Your task to perform on an android device: Clear the shopping cart on newegg. Search for "razer naga" on newegg, select the first entry, and add it to the cart. Image 0: 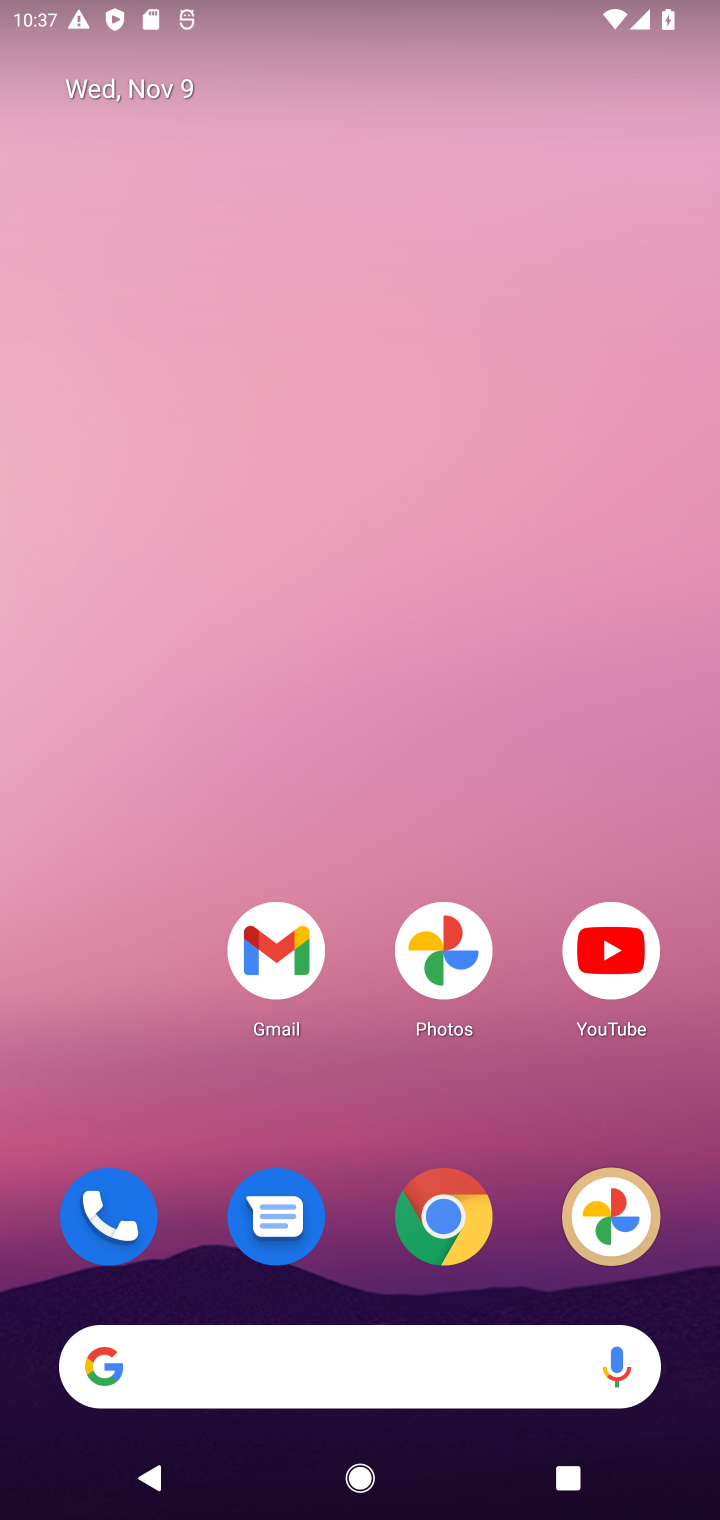
Step 0: drag from (414, 686) to (433, 70)
Your task to perform on an android device: Clear the shopping cart on newegg. Search for "razer naga" on newegg, select the first entry, and add it to the cart. Image 1: 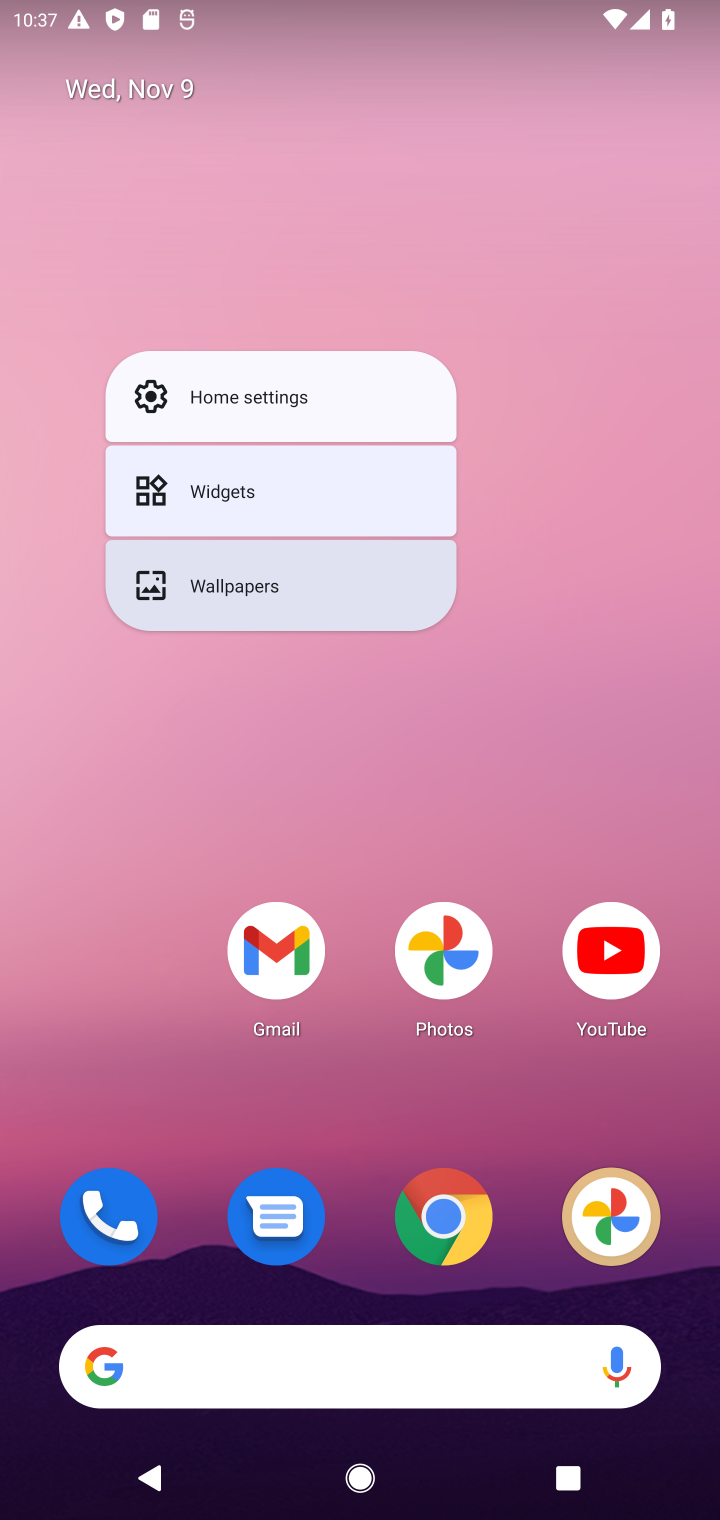
Step 1: click (492, 306)
Your task to perform on an android device: Clear the shopping cart on newegg. Search for "razer naga" on newegg, select the first entry, and add it to the cart. Image 2: 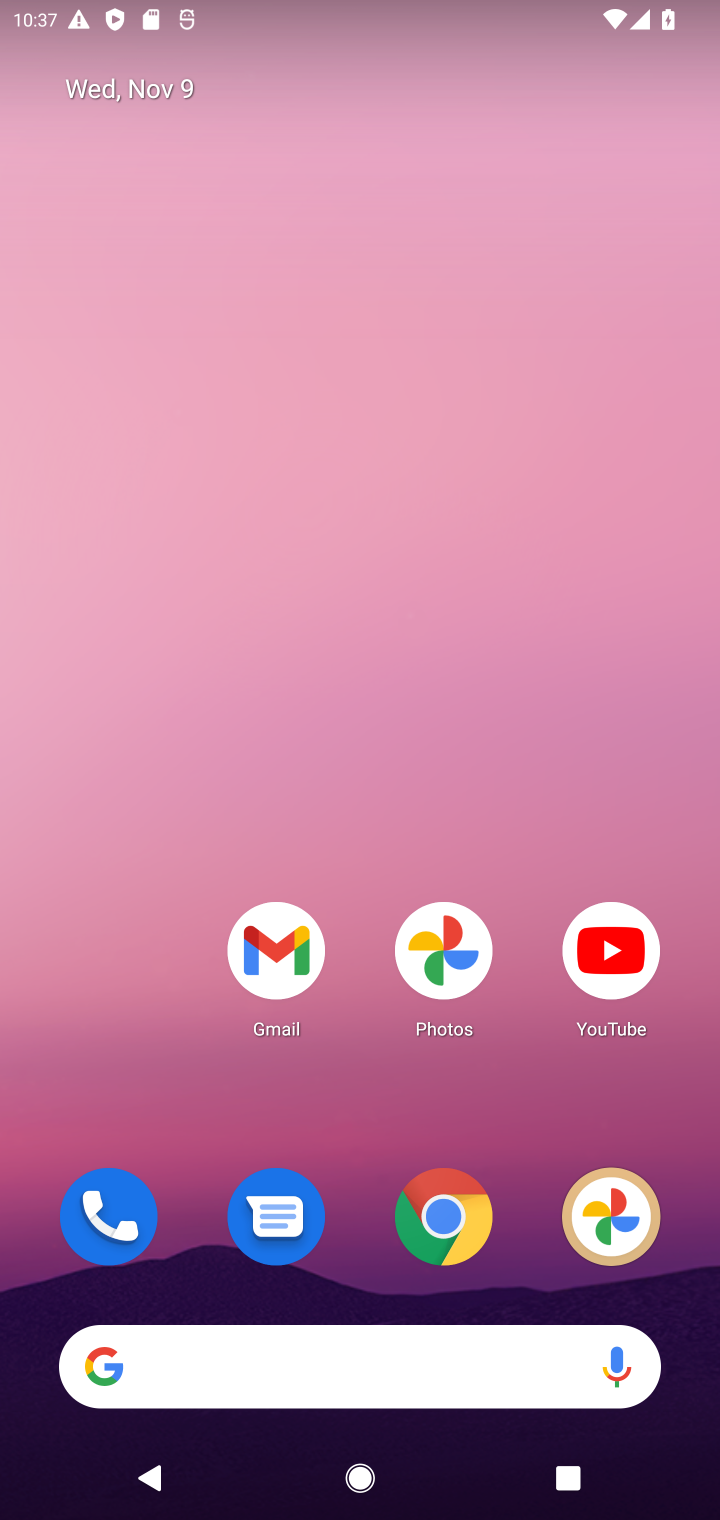
Step 2: drag from (376, 1131) to (392, 103)
Your task to perform on an android device: Clear the shopping cart on newegg. Search for "razer naga" on newegg, select the first entry, and add it to the cart. Image 3: 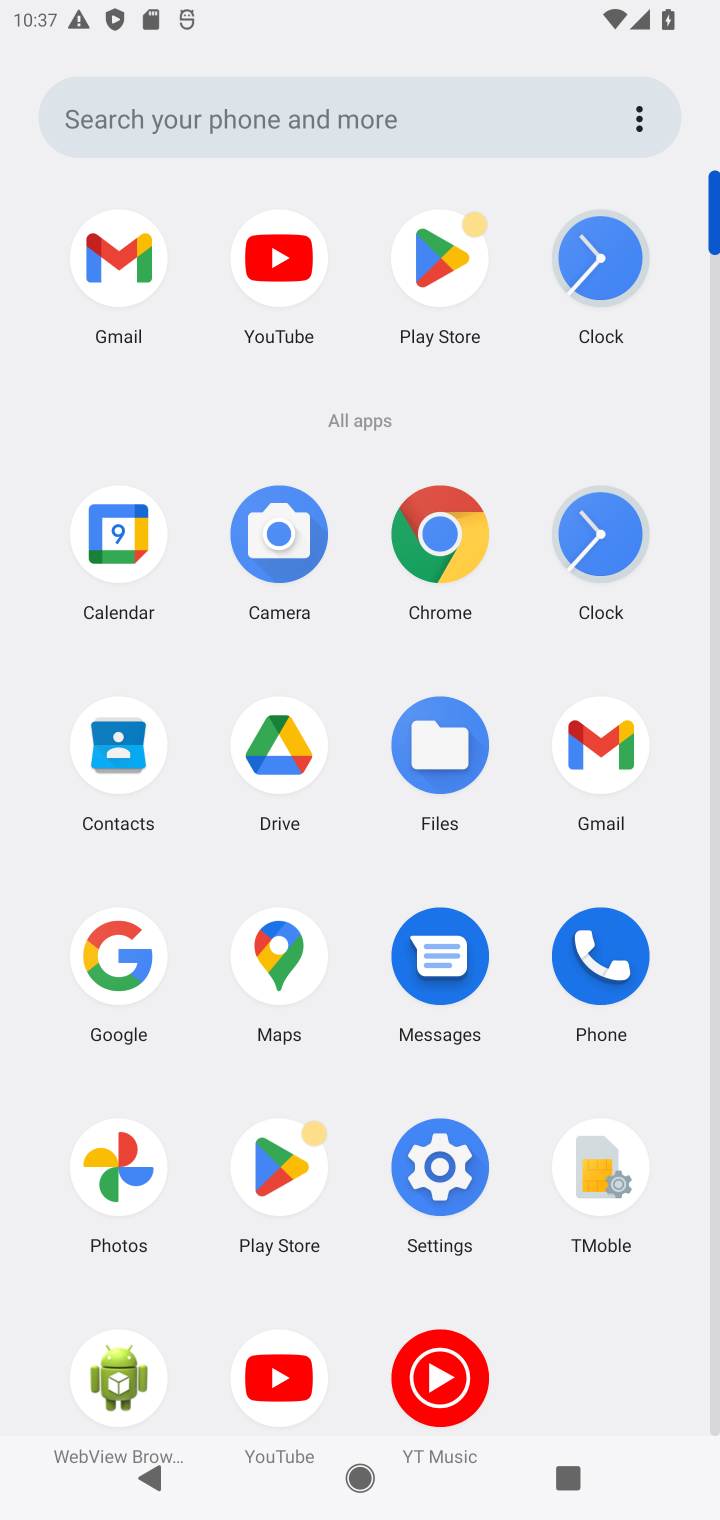
Step 3: click (442, 537)
Your task to perform on an android device: Clear the shopping cart on newegg. Search for "razer naga" on newegg, select the first entry, and add it to the cart. Image 4: 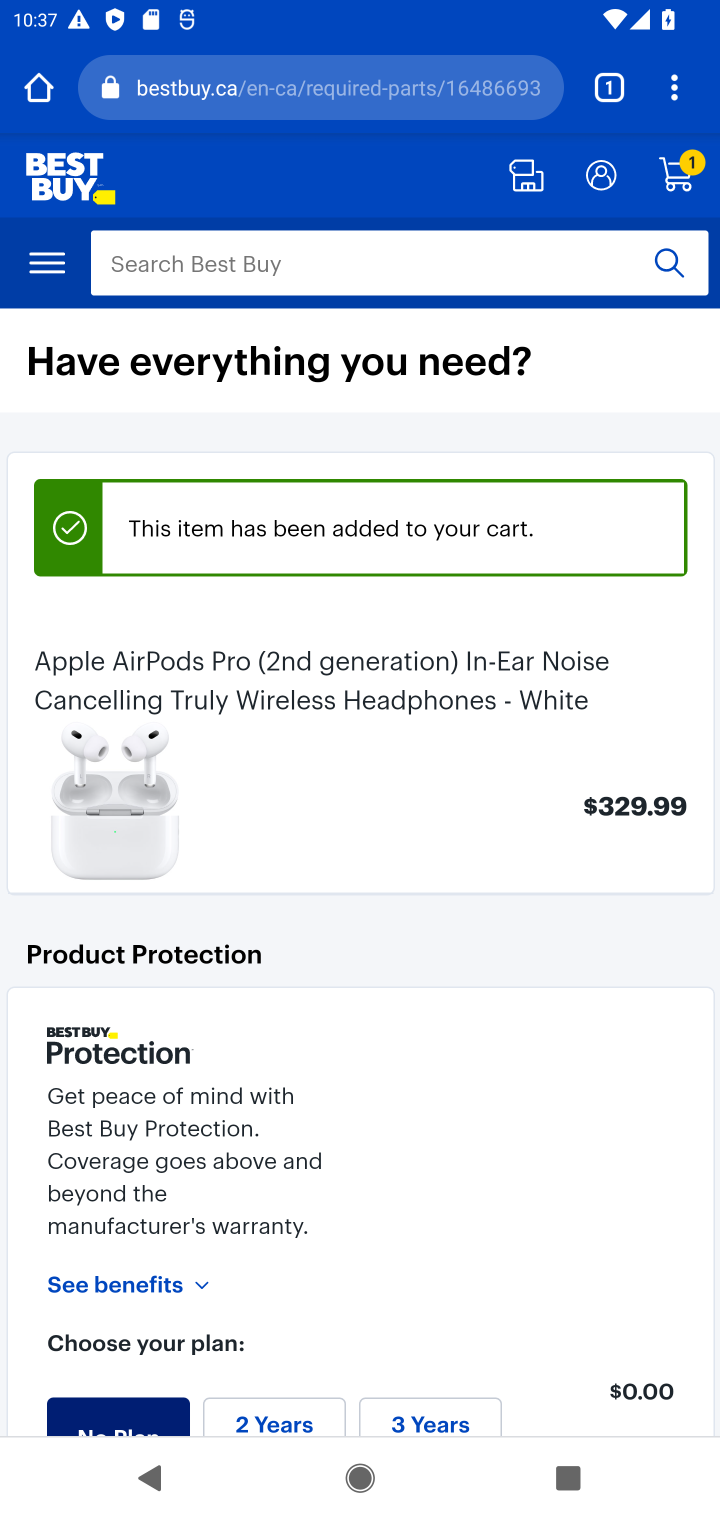
Step 4: click (406, 102)
Your task to perform on an android device: Clear the shopping cart on newegg. Search for "razer naga" on newegg, select the first entry, and add it to the cart. Image 5: 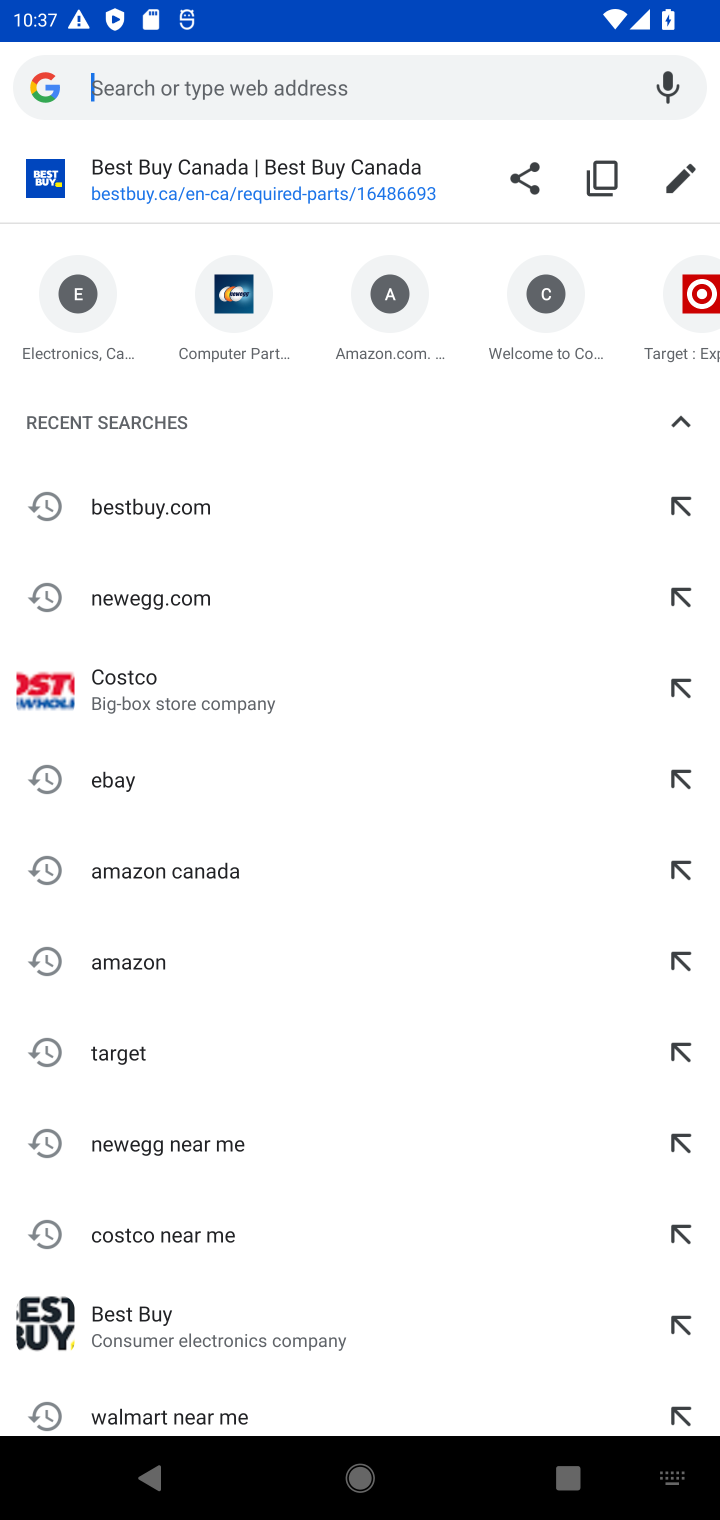
Step 5: type "newegg.com"
Your task to perform on an android device: Clear the shopping cart on newegg. Search for "razer naga" on newegg, select the first entry, and add it to the cart. Image 6: 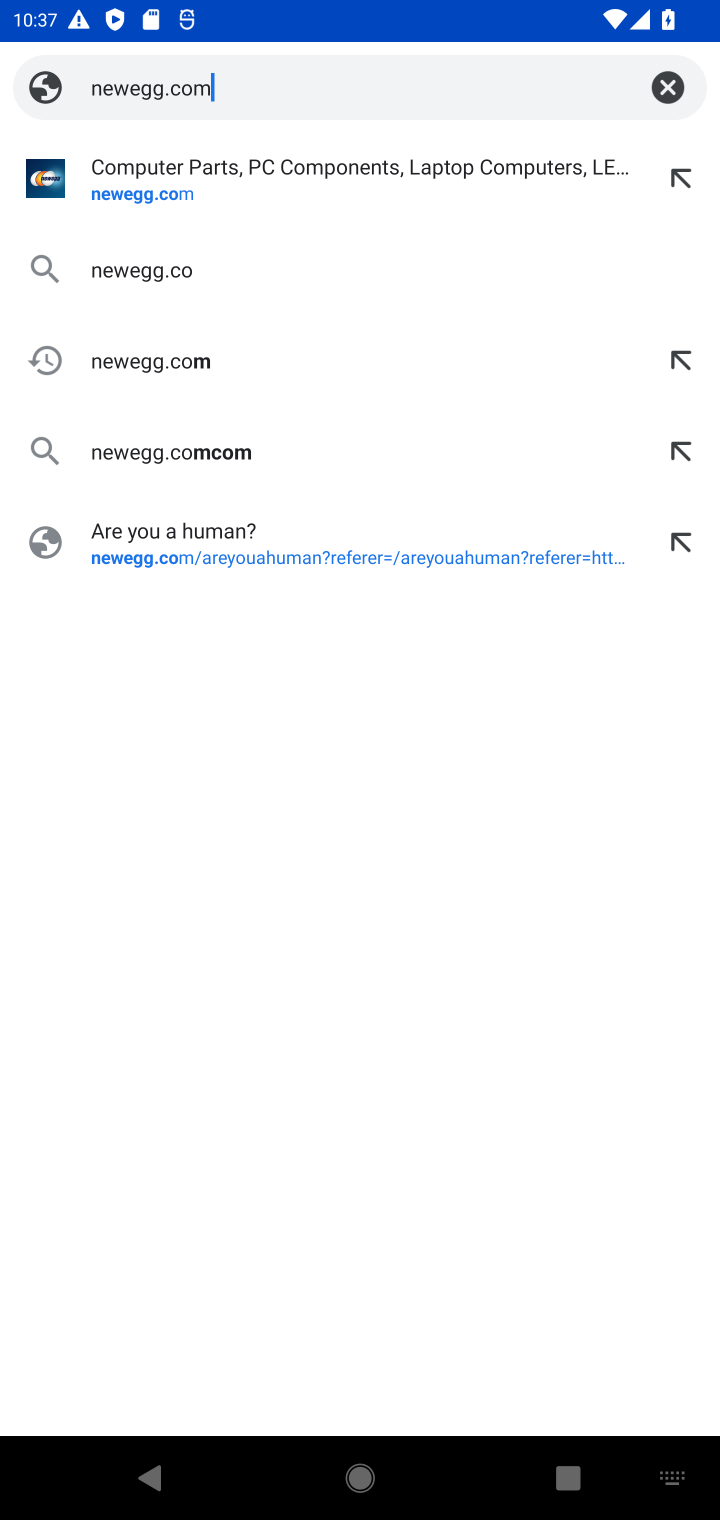
Step 6: press enter
Your task to perform on an android device: Clear the shopping cart on newegg. Search for "razer naga" on newegg, select the first entry, and add it to the cart. Image 7: 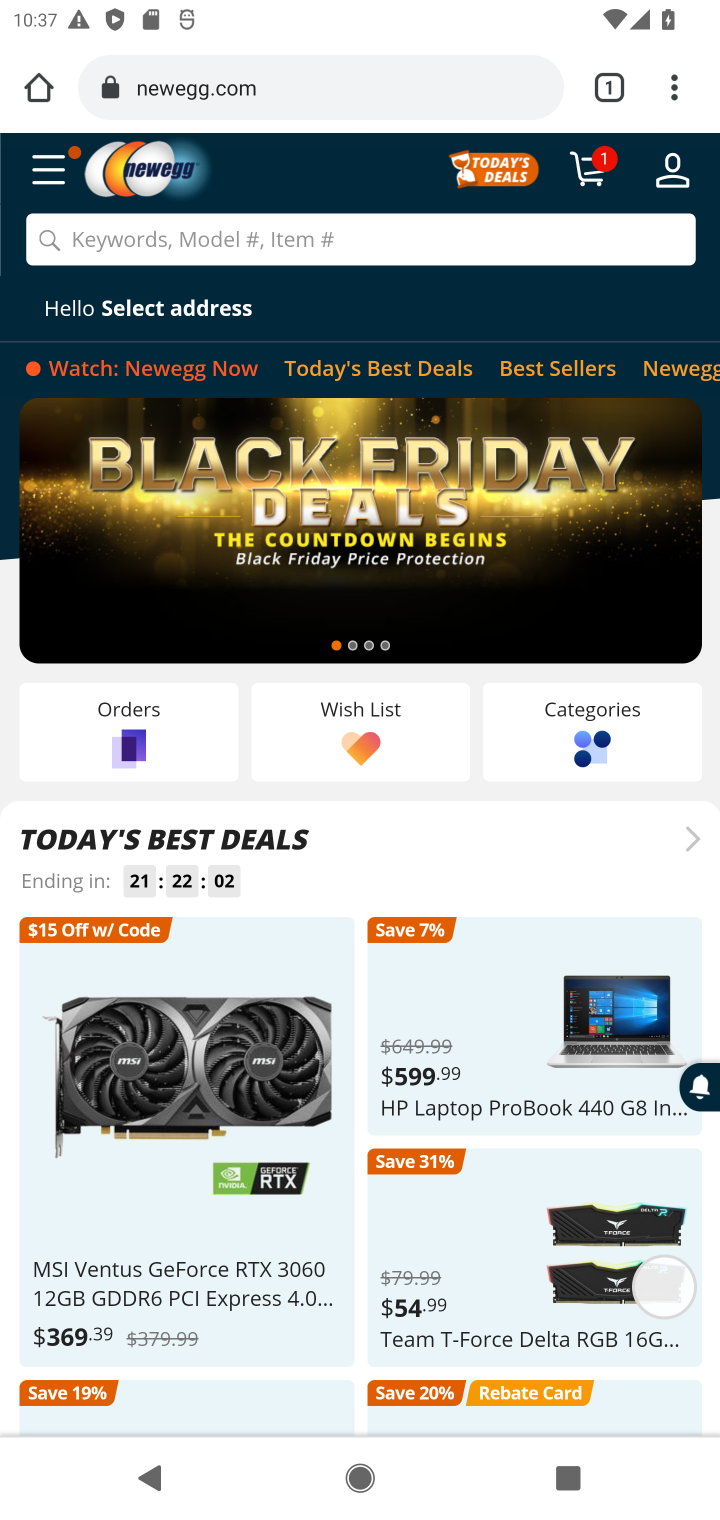
Step 7: click (602, 177)
Your task to perform on an android device: Clear the shopping cart on newegg. Search for "razer naga" on newegg, select the first entry, and add it to the cart. Image 8: 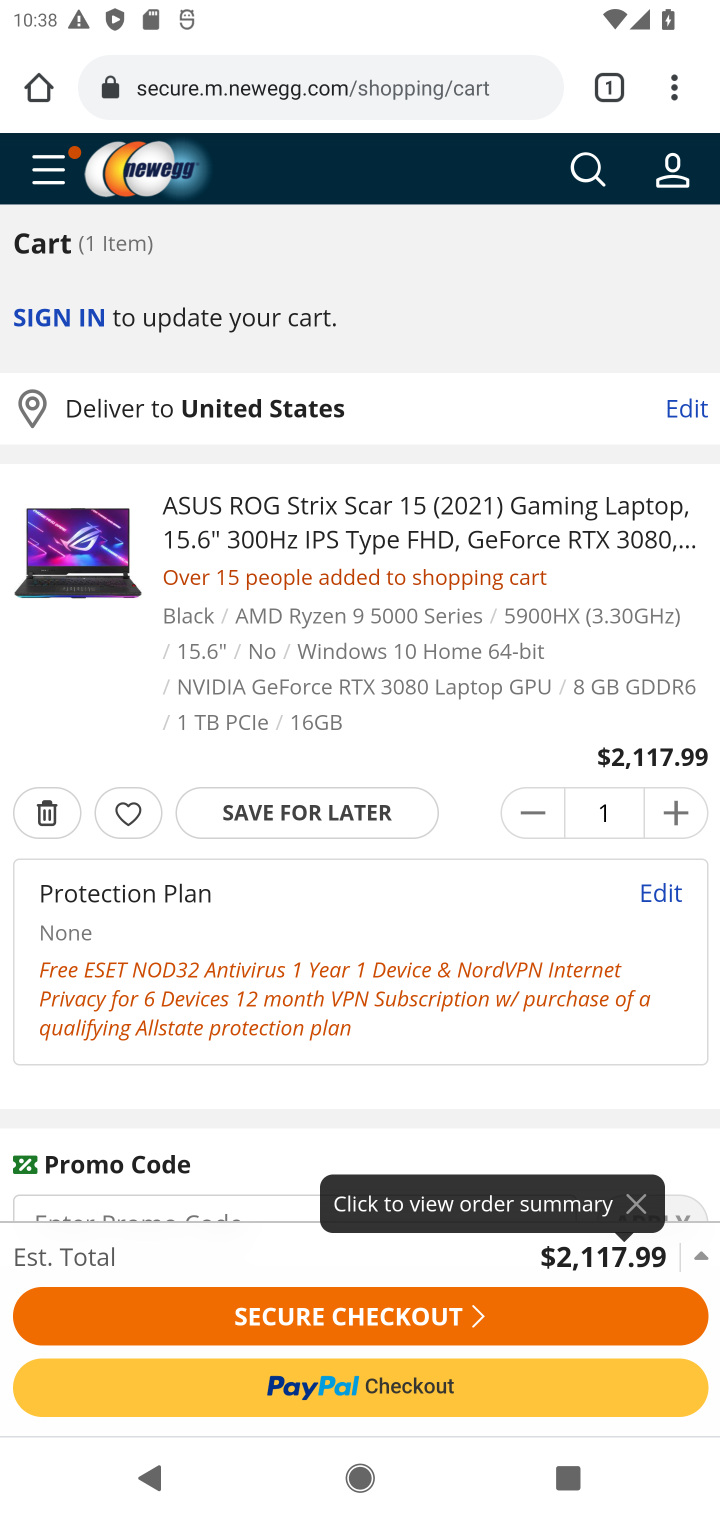
Step 8: click (34, 808)
Your task to perform on an android device: Clear the shopping cart on newegg. Search for "razer naga" on newegg, select the first entry, and add it to the cart. Image 9: 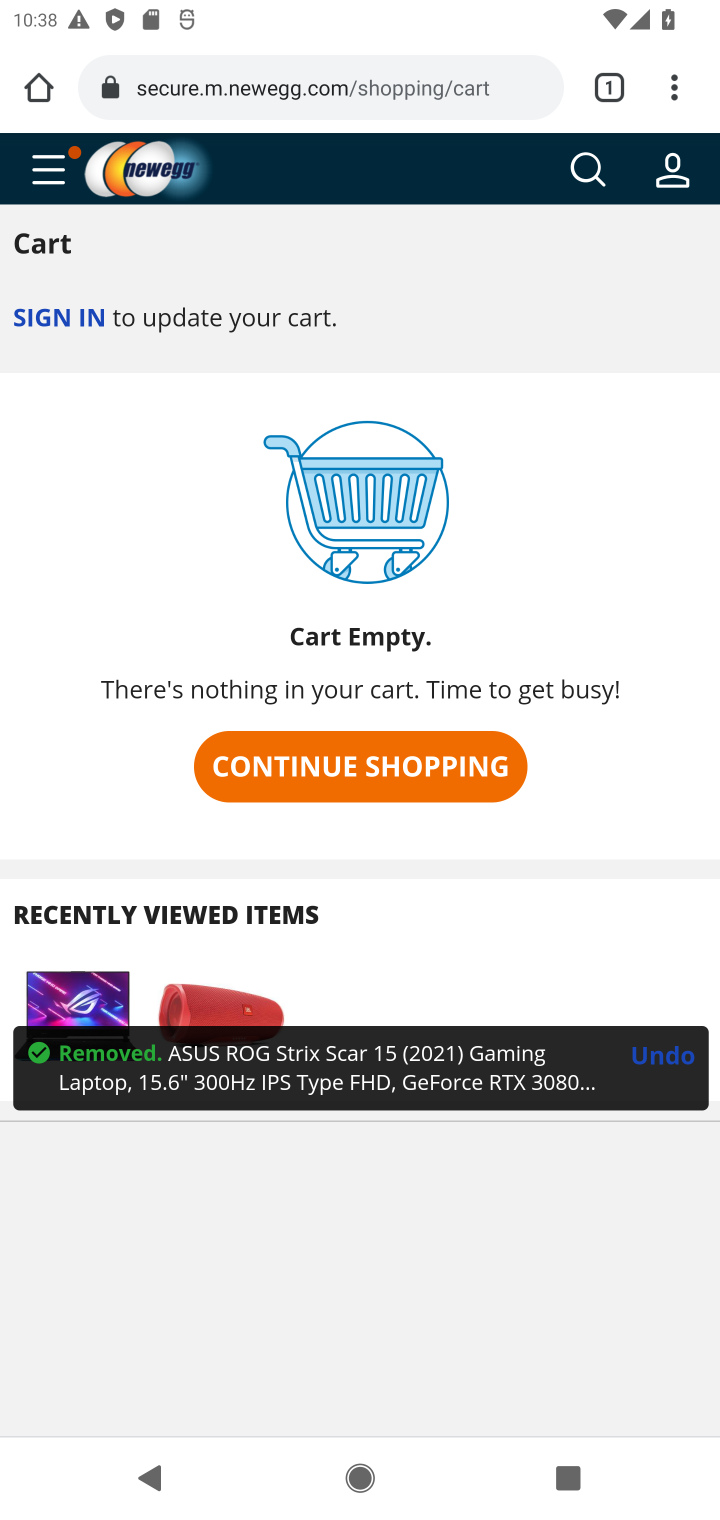
Step 9: click (607, 165)
Your task to perform on an android device: Clear the shopping cart on newegg. Search for "razer naga" on newegg, select the first entry, and add it to the cart. Image 10: 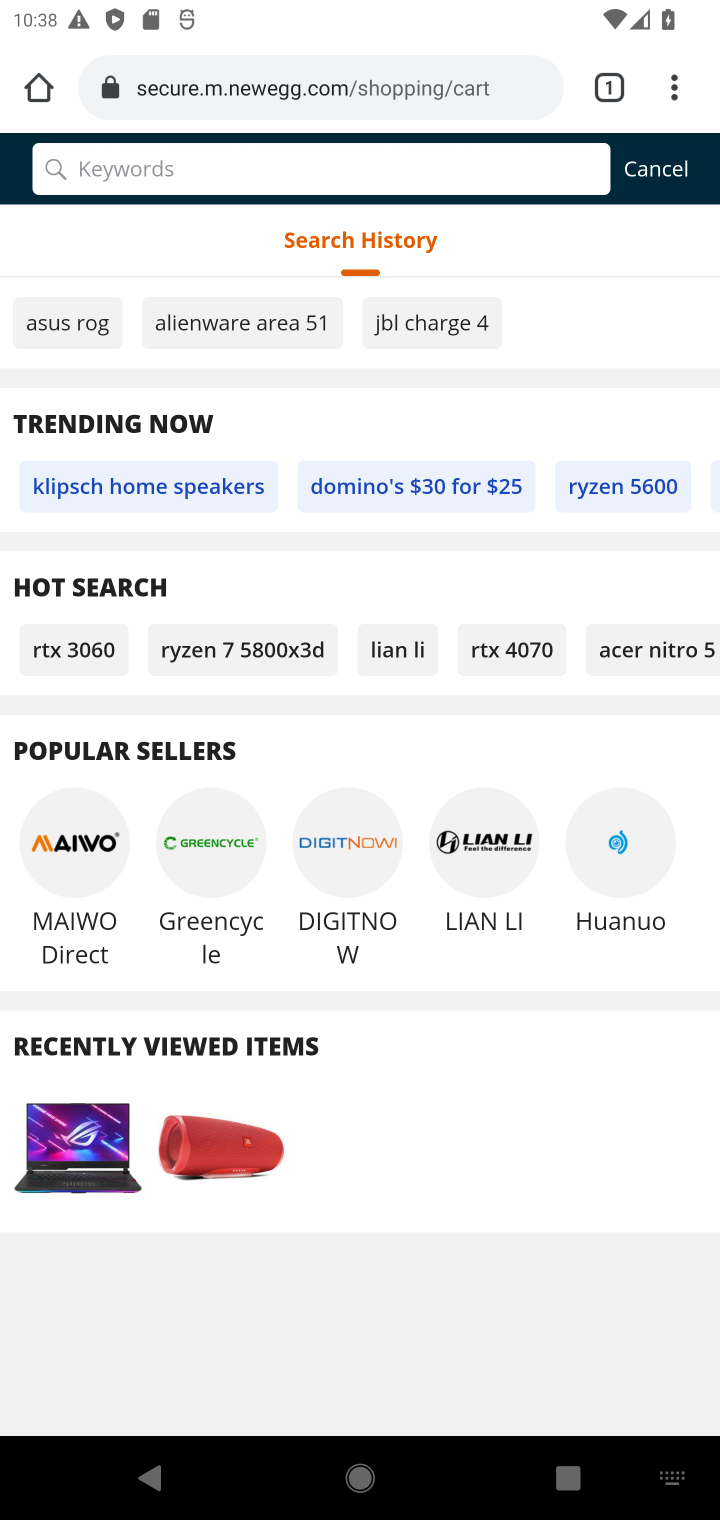
Step 10: click (645, 173)
Your task to perform on an android device: Clear the shopping cart on newegg. Search for "razer naga" on newegg, select the first entry, and add it to the cart. Image 11: 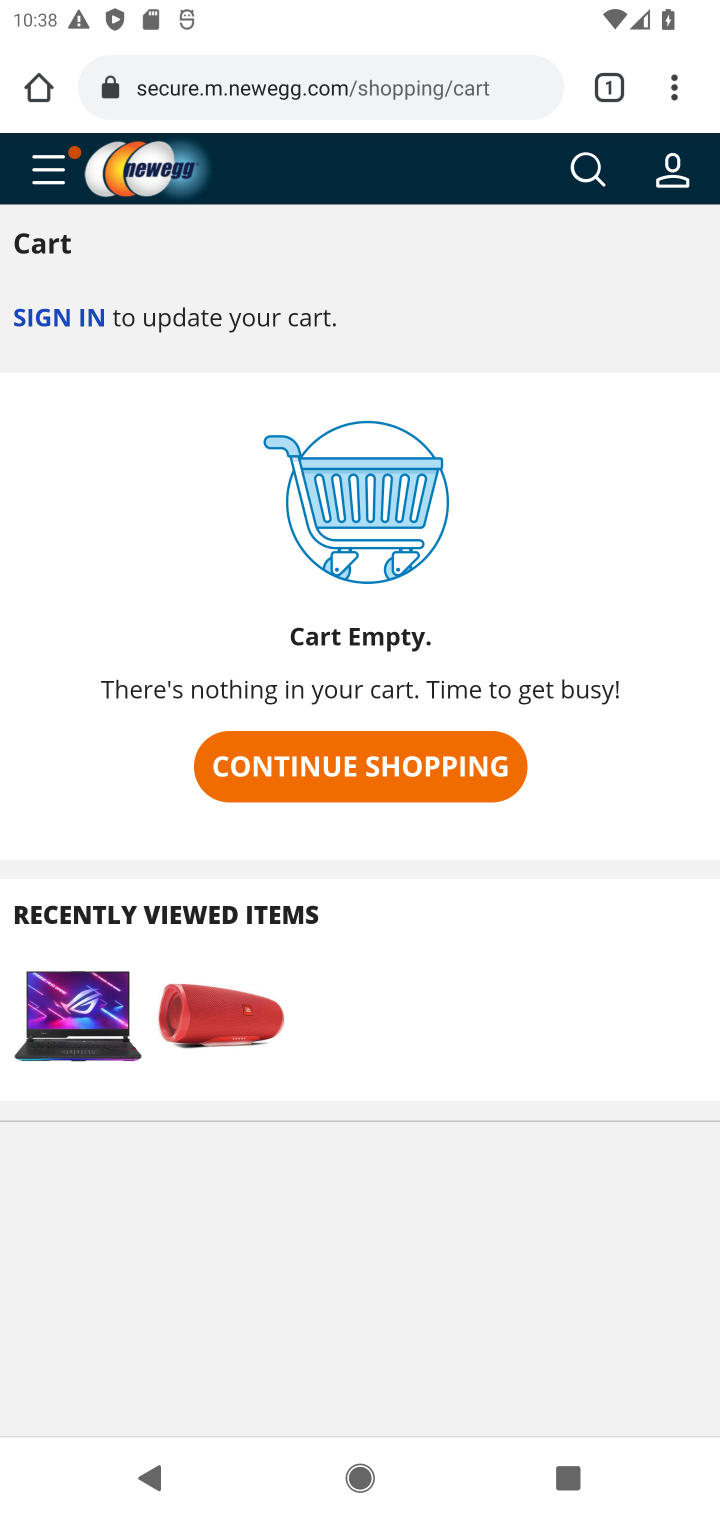
Step 11: click (502, 174)
Your task to perform on an android device: Clear the shopping cart on newegg. Search for "razer naga" on newegg, select the first entry, and add it to the cart. Image 12: 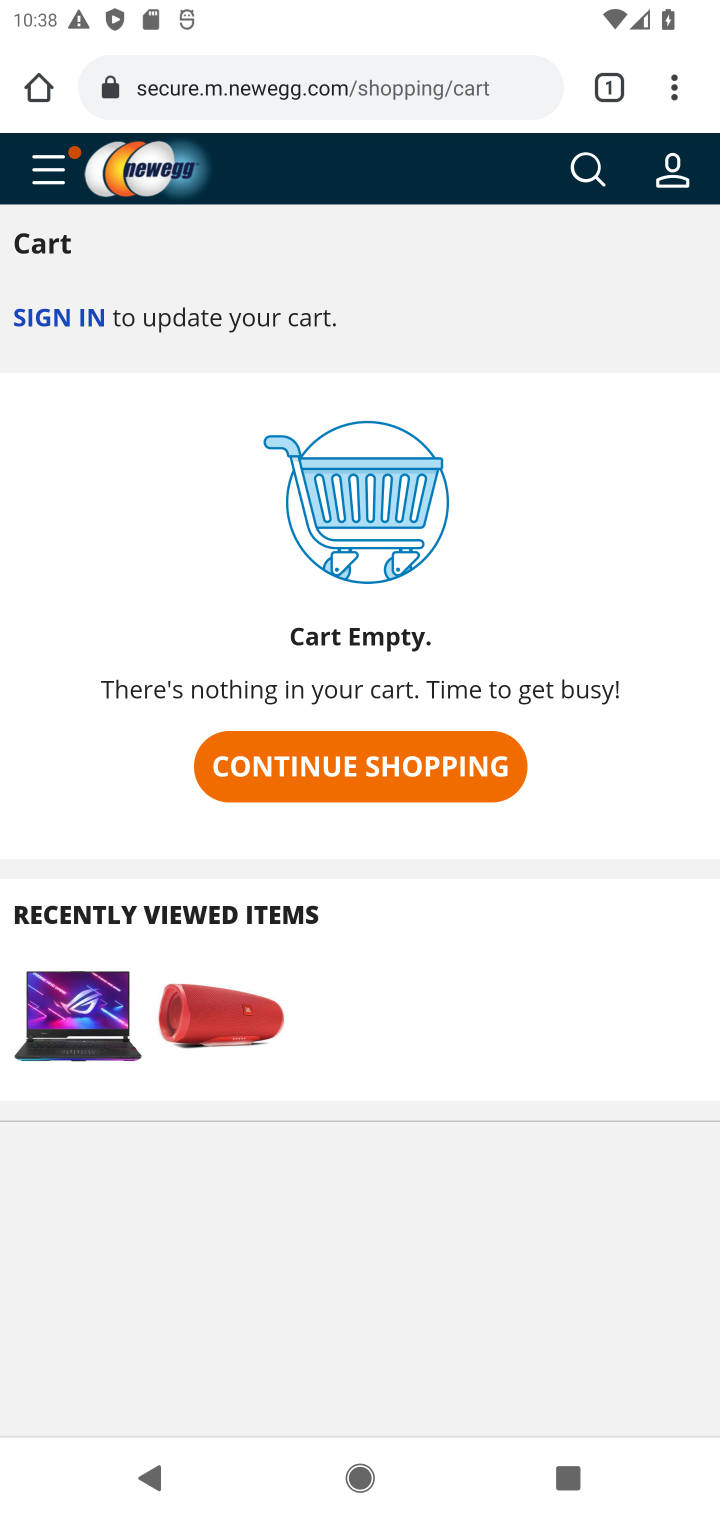
Step 12: click (554, 188)
Your task to perform on an android device: Clear the shopping cart on newegg. Search for "razer naga" on newegg, select the first entry, and add it to the cart. Image 13: 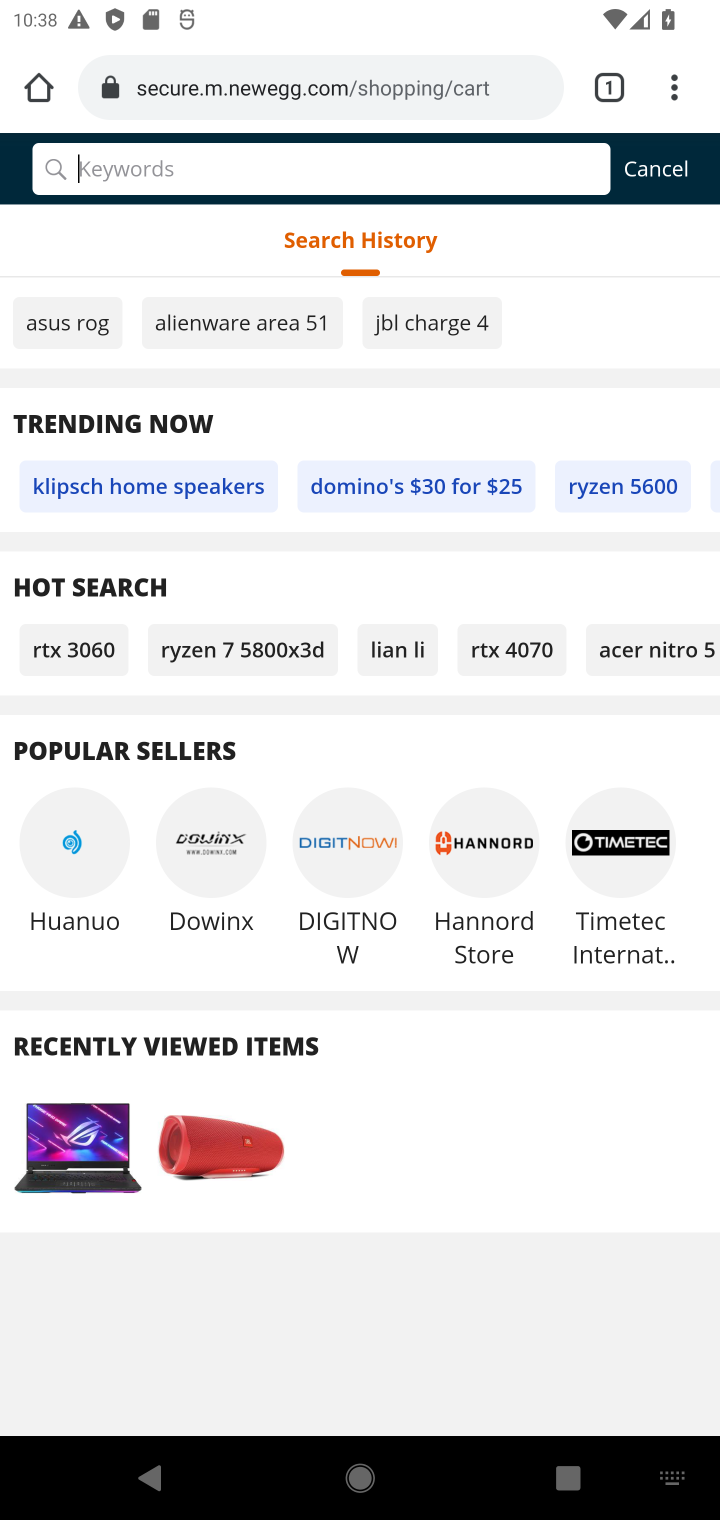
Step 13: click (593, 188)
Your task to perform on an android device: Clear the shopping cart on newegg. Search for "razer naga" on newegg, select the first entry, and add it to the cart. Image 14: 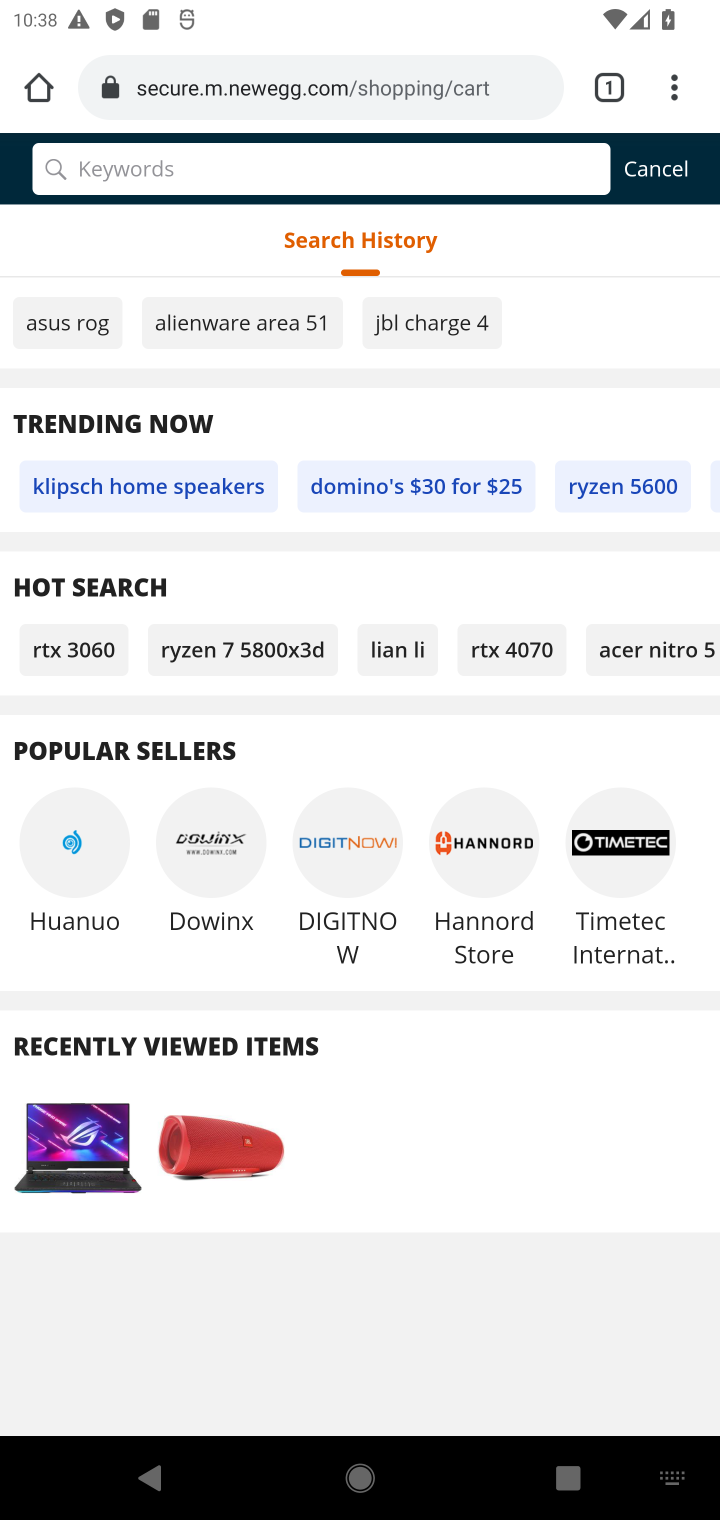
Step 14: type "razer naga"
Your task to perform on an android device: Clear the shopping cart on newegg. Search for "razer naga" on newegg, select the first entry, and add it to the cart. Image 15: 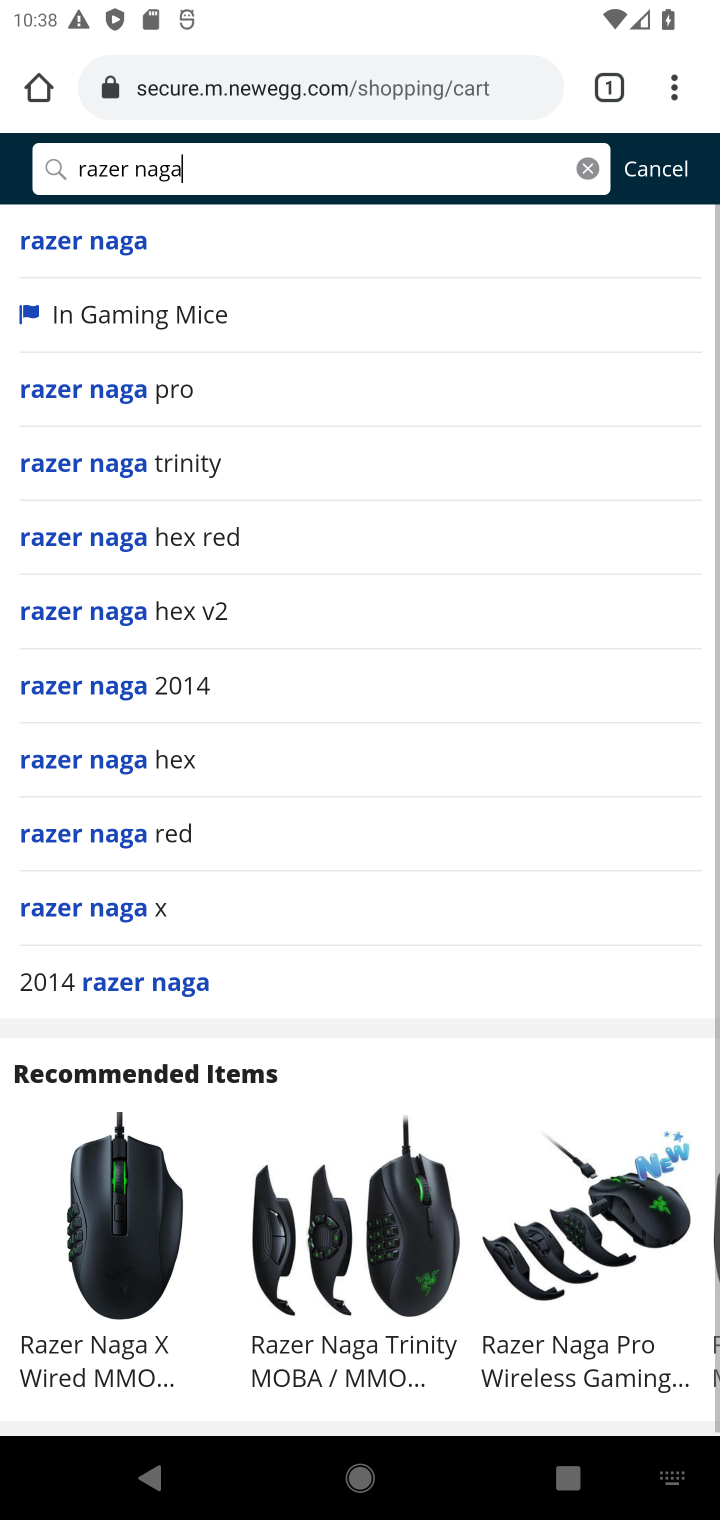
Step 15: press enter
Your task to perform on an android device: Clear the shopping cart on newegg. Search for "razer naga" on newegg, select the first entry, and add it to the cart. Image 16: 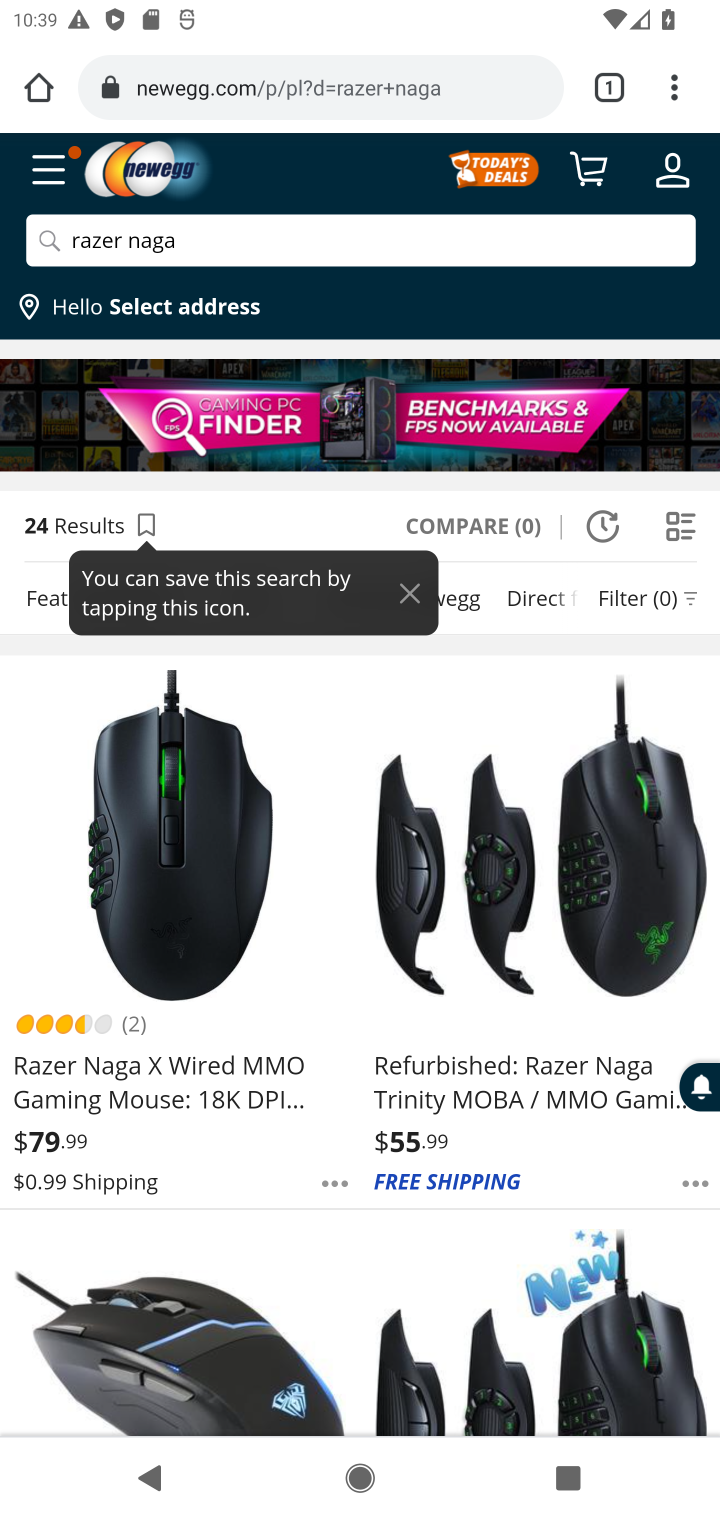
Step 16: click (168, 1092)
Your task to perform on an android device: Clear the shopping cart on newegg. Search for "razer naga" on newegg, select the first entry, and add it to the cart. Image 17: 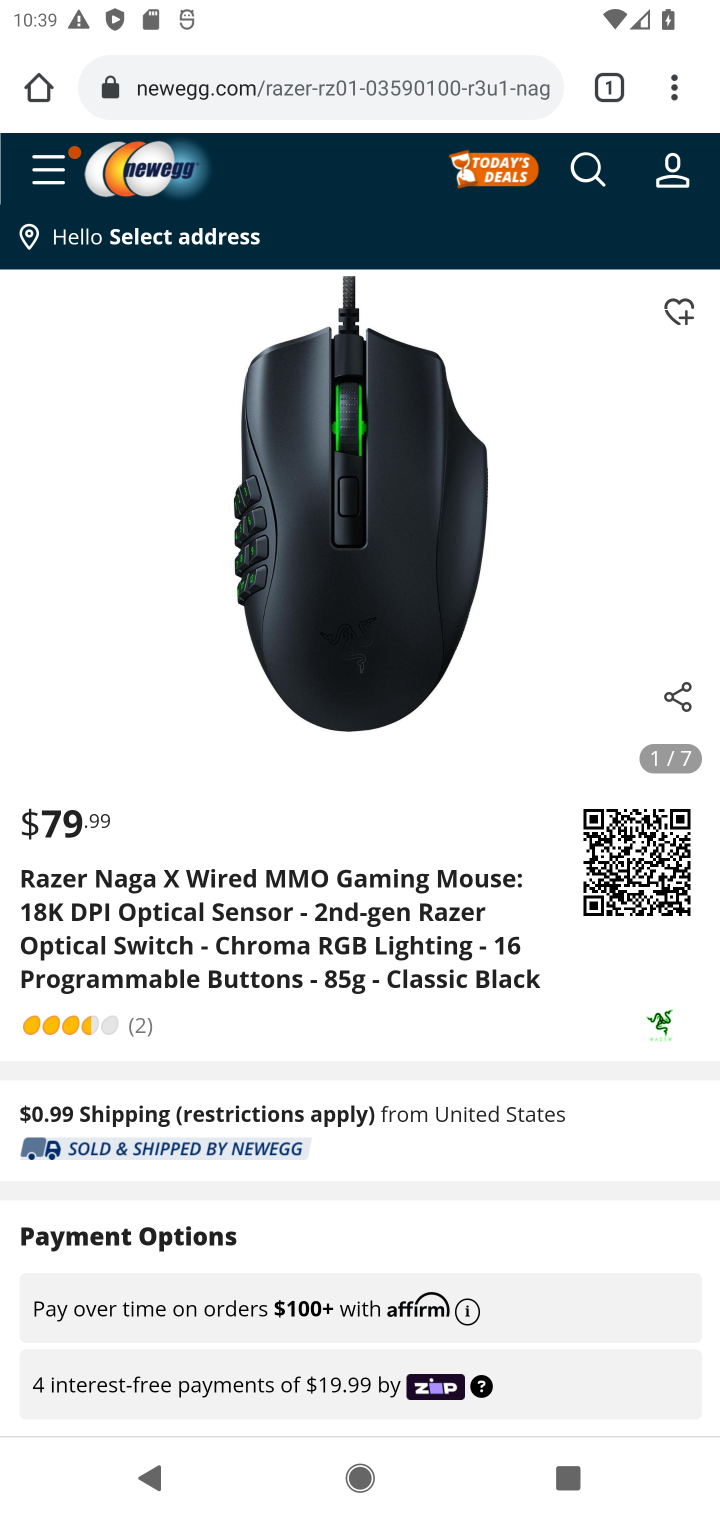
Step 17: drag from (349, 1240) to (364, 931)
Your task to perform on an android device: Clear the shopping cart on newegg. Search for "razer naga" on newegg, select the first entry, and add it to the cart. Image 18: 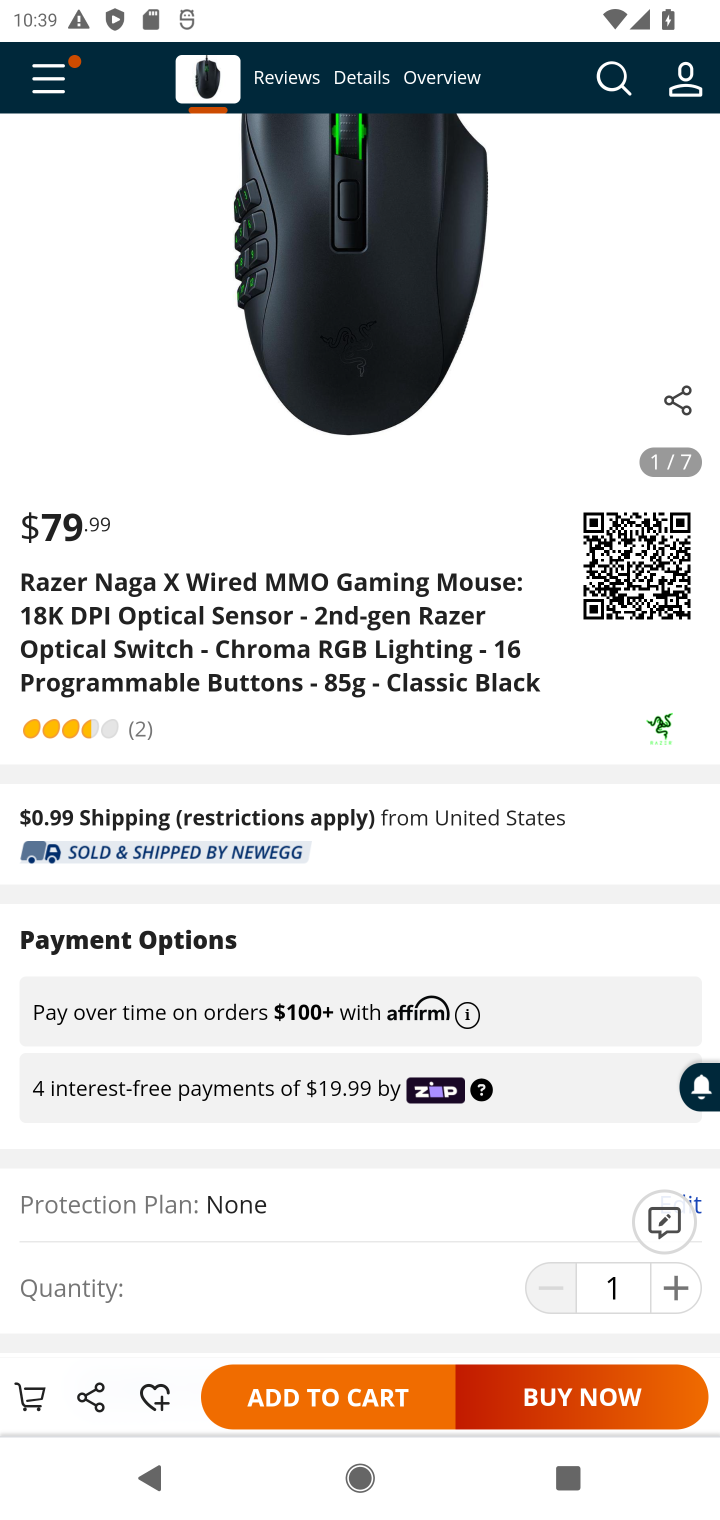
Step 18: click (329, 1395)
Your task to perform on an android device: Clear the shopping cart on newegg. Search for "razer naga" on newegg, select the first entry, and add it to the cart. Image 19: 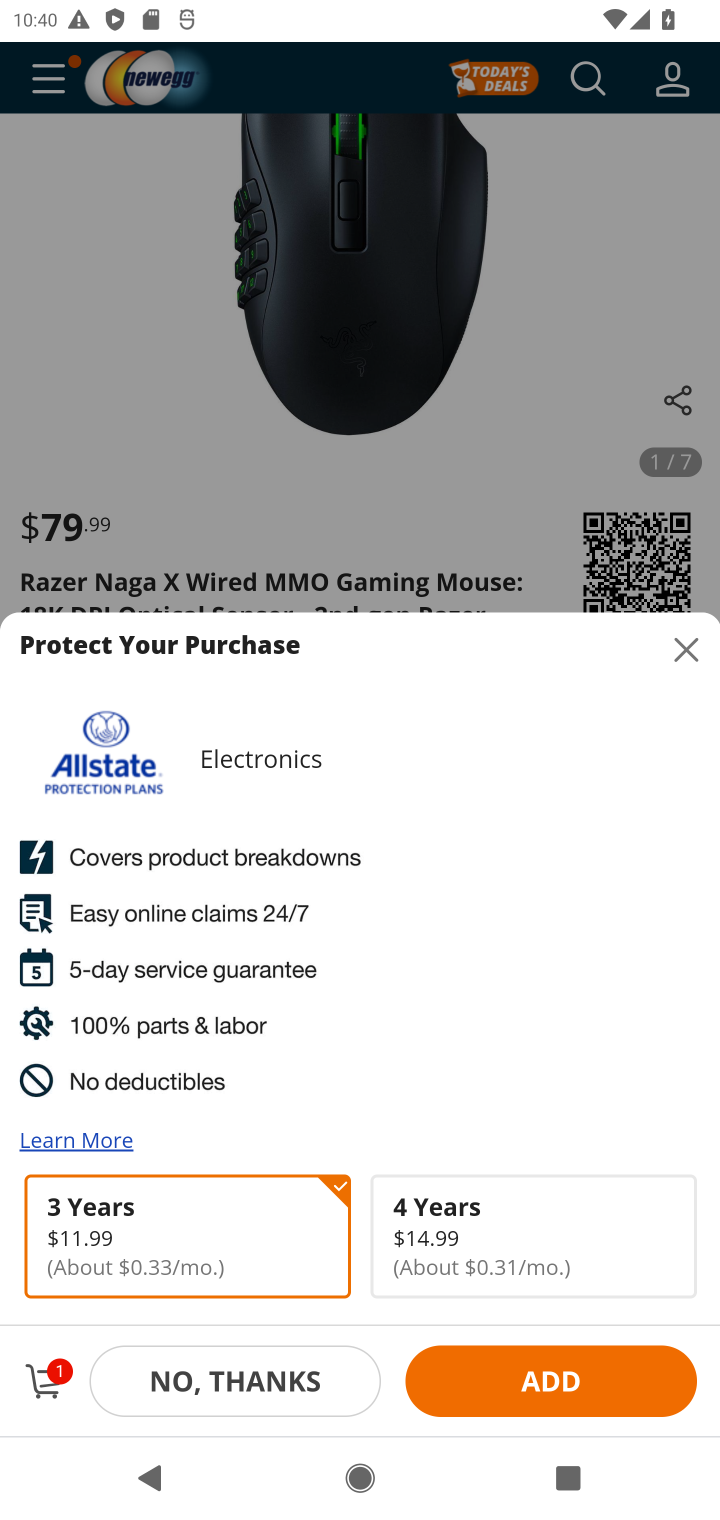
Step 19: task complete